Your task to perform on an android device: turn on the 12-hour format for clock Image 0: 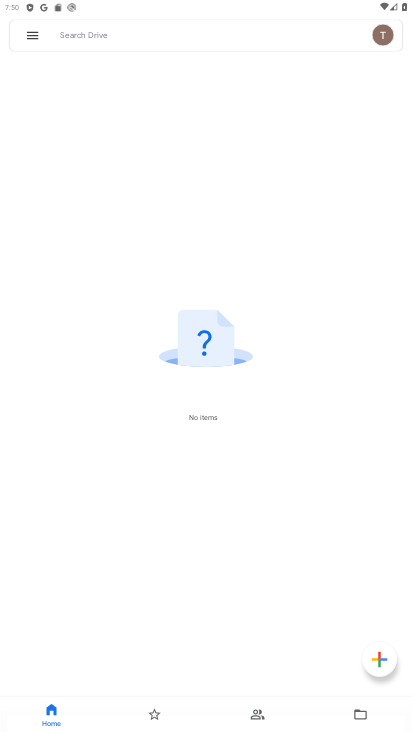
Step 0: press home button
Your task to perform on an android device: turn on the 12-hour format for clock Image 1: 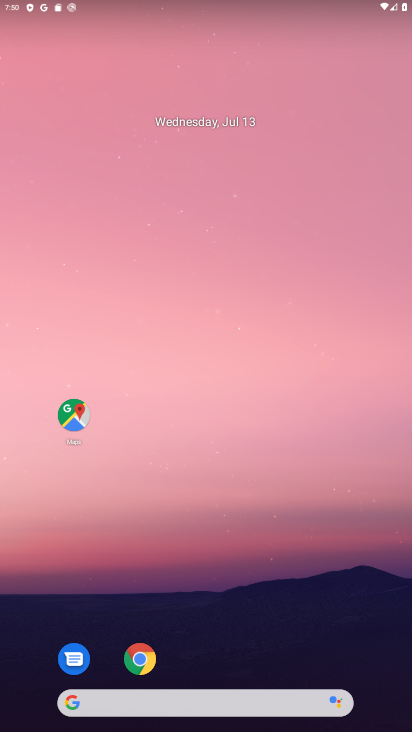
Step 1: drag from (307, 642) to (263, 95)
Your task to perform on an android device: turn on the 12-hour format for clock Image 2: 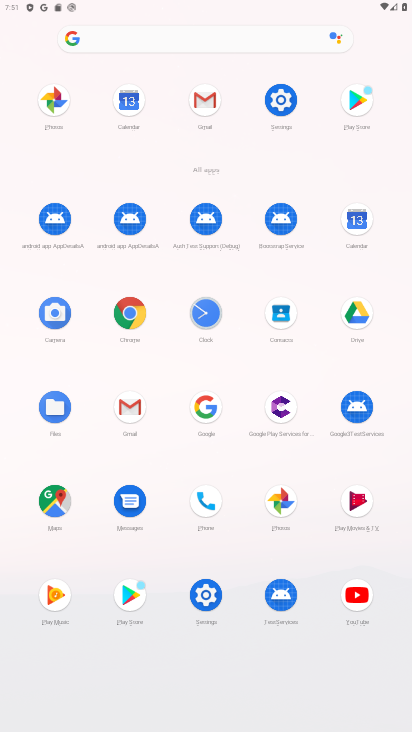
Step 2: click (215, 330)
Your task to perform on an android device: turn on the 12-hour format for clock Image 3: 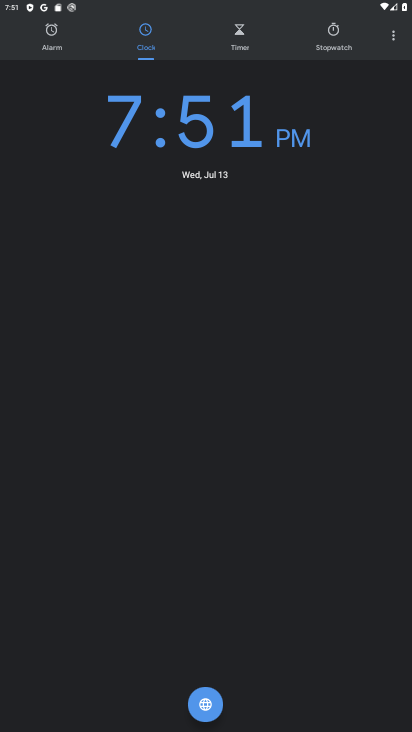
Step 3: click (399, 38)
Your task to perform on an android device: turn on the 12-hour format for clock Image 4: 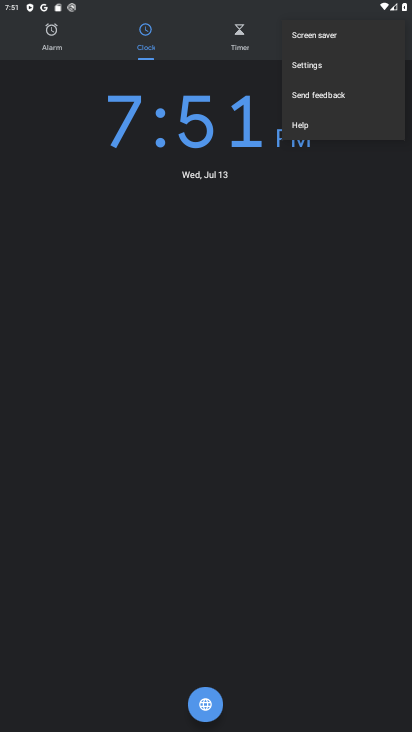
Step 4: click (348, 65)
Your task to perform on an android device: turn on the 12-hour format for clock Image 5: 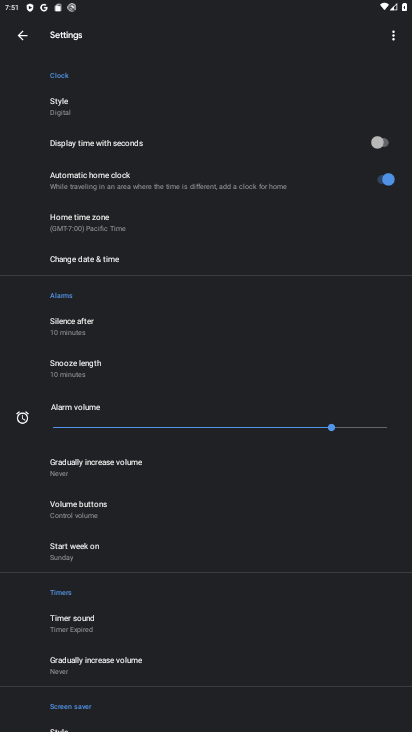
Step 5: click (31, 45)
Your task to perform on an android device: turn on the 12-hour format for clock Image 6: 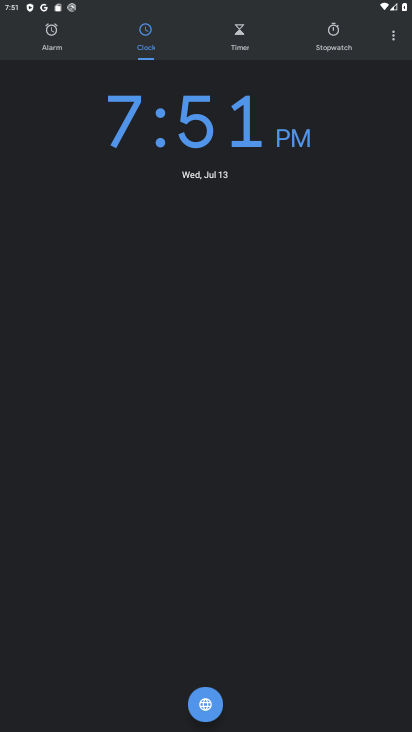
Step 6: click (394, 41)
Your task to perform on an android device: turn on the 12-hour format for clock Image 7: 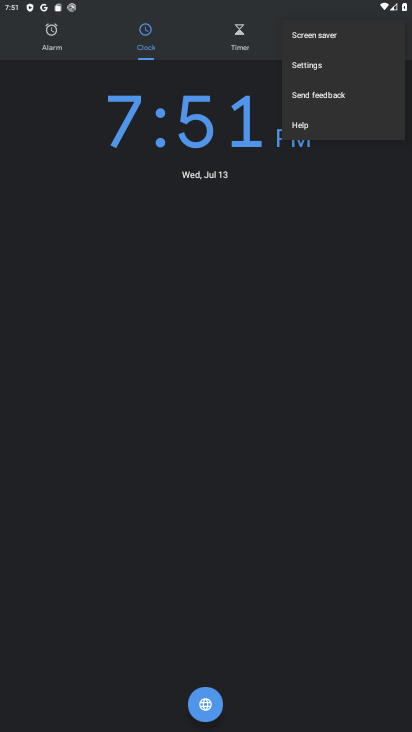
Step 7: click (302, 65)
Your task to perform on an android device: turn on the 12-hour format for clock Image 8: 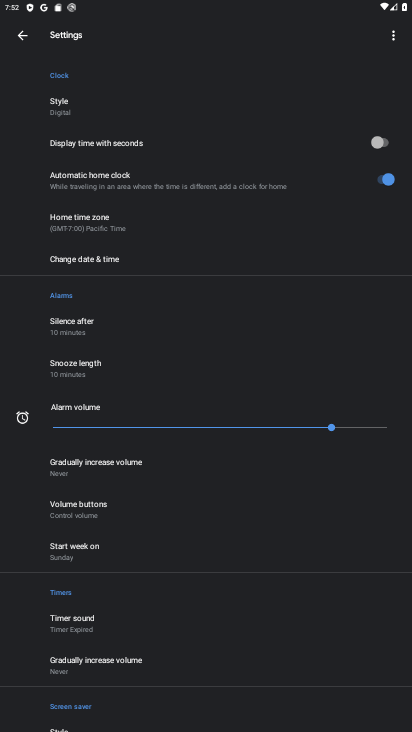
Step 8: click (126, 268)
Your task to perform on an android device: turn on the 12-hour format for clock Image 9: 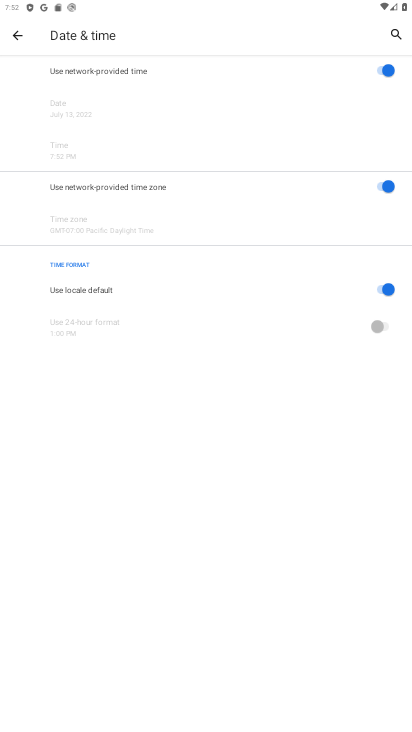
Step 9: click (391, 295)
Your task to perform on an android device: turn on the 12-hour format for clock Image 10: 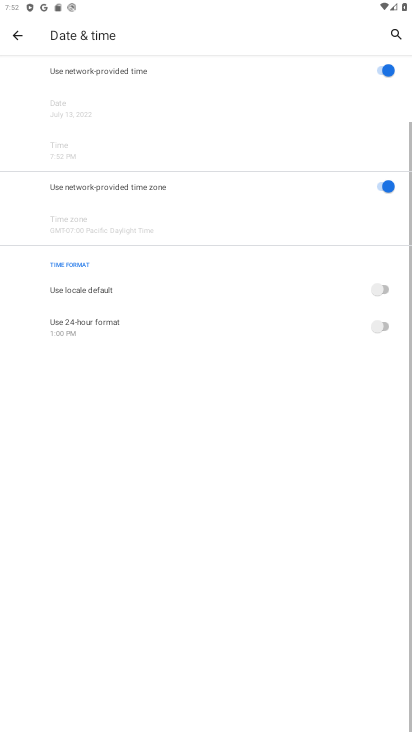
Step 10: task complete